Your task to perform on an android device: Toggle the flashlight Image 0: 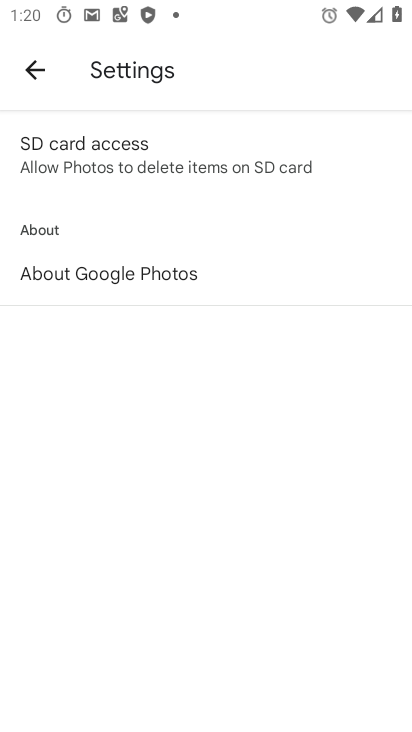
Step 0: press home button
Your task to perform on an android device: Toggle the flashlight Image 1: 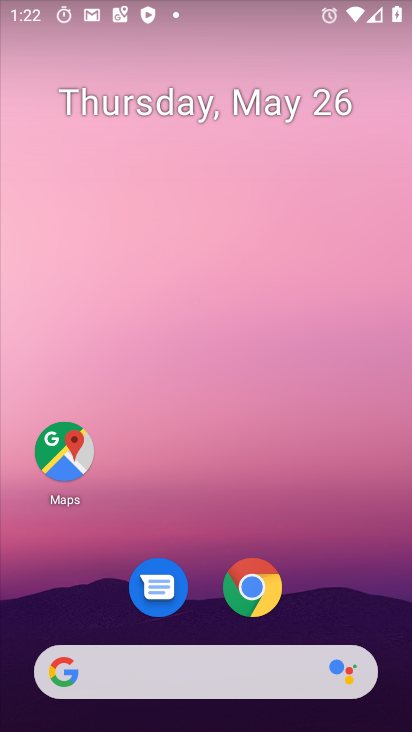
Step 1: drag from (280, 686) to (342, 164)
Your task to perform on an android device: Toggle the flashlight Image 2: 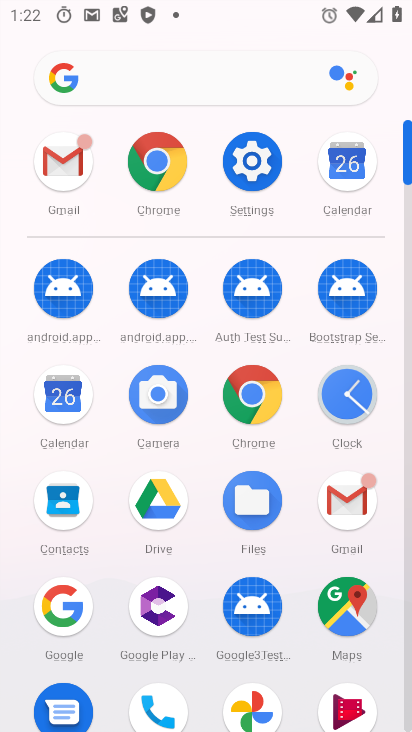
Step 2: click (258, 157)
Your task to perform on an android device: Toggle the flashlight Image 3: 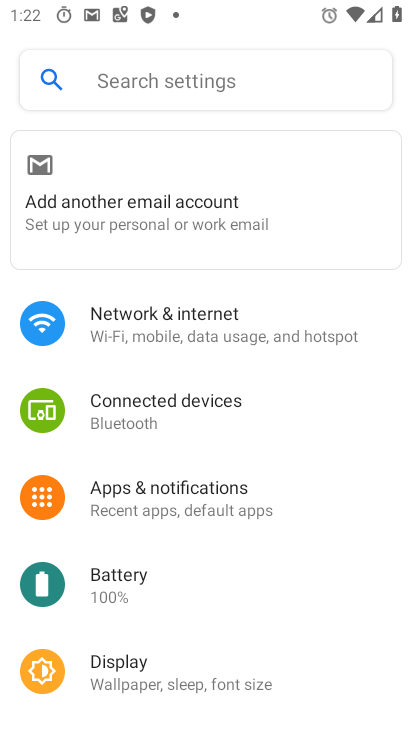
Step 3: click (170, 84)
Your task to perform on an android device: Toggle the flashlight Image 4: 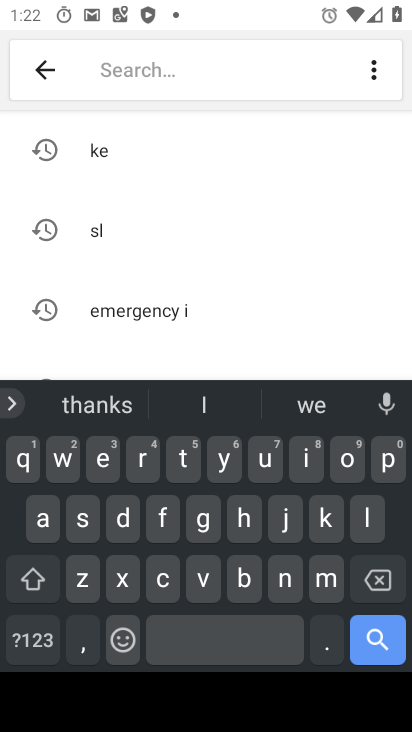
Step 4: click (162, 523)
Your task to perform on an android device: Toggle the flashlight Image 5: 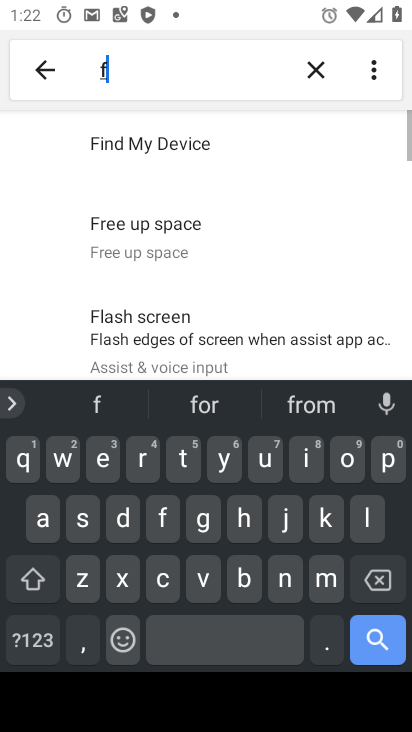
Step 5: click (373, 515)
Your task to perform on an android device: Toggle the flashlight Image 6: 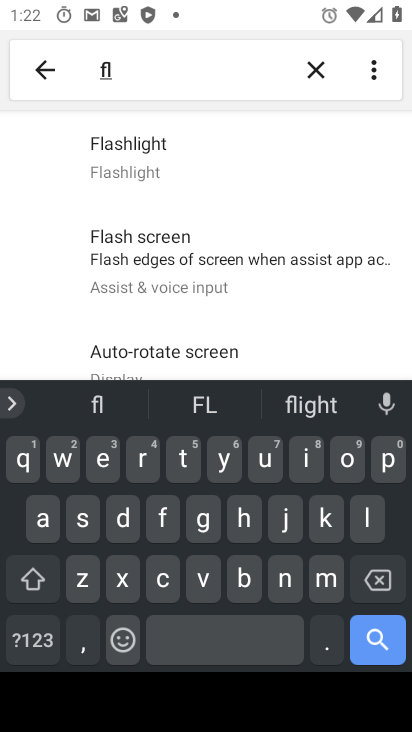
Step 6: click (186, 149)
Your task to perform on an android device: Toggle the flashlight Image 7: 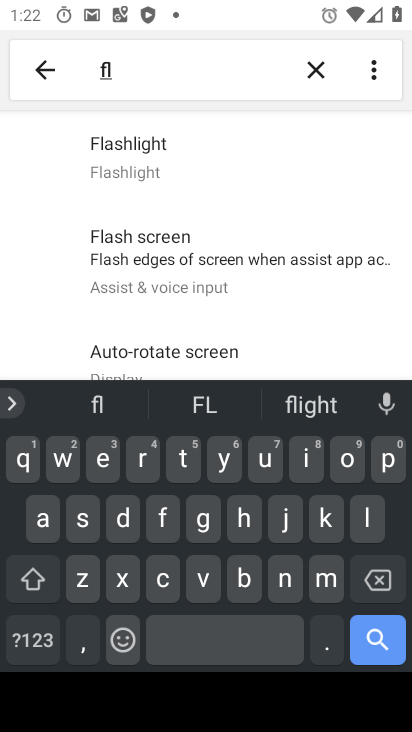
Step 7: task complete